Your task to perform on an android device: visit the assistant section in the google photos Image 0: 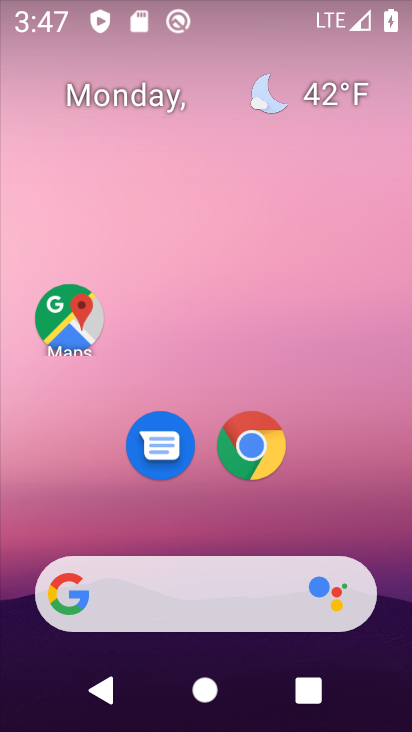
Step 0: drag from (13, 506) to (215, 38)
Your task to perform on an android device: visit the assistant section in the google photos Image 1: 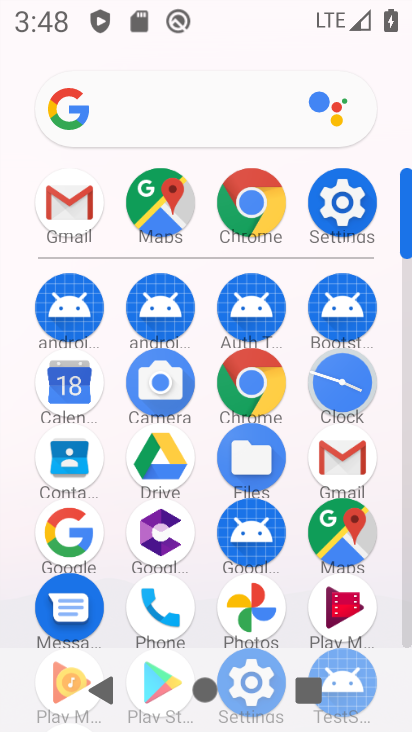
Step 1: click (231, 617)
Your task to perform on an android device: visit the assistant section in the google photos Image 2: 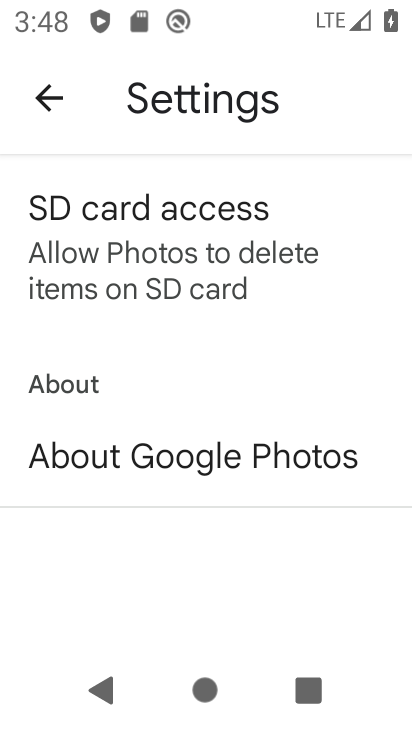
Step 2: click (46, 96)
Your task to perform on an android device: visit the assistant section in the google photos Image 3: 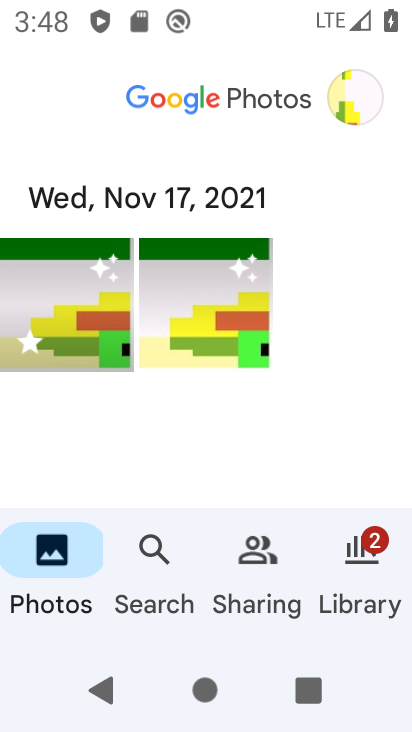
Step 3: task complete